Your task to perform on an android device: Go to location settings Image 0: 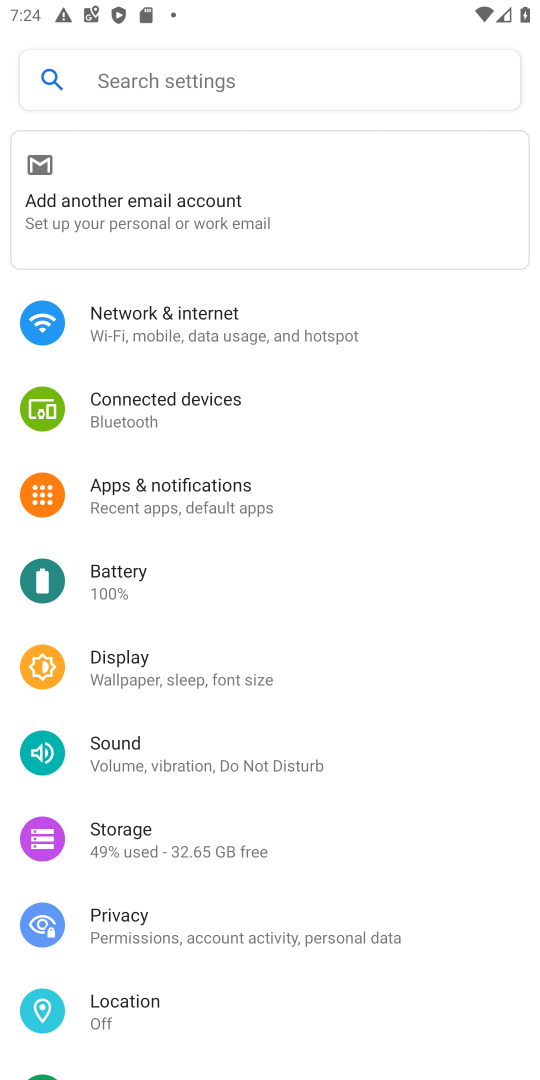
Step 0: click (222, 1010)
Your task to perform on an android device: Go to location settings Image 1: 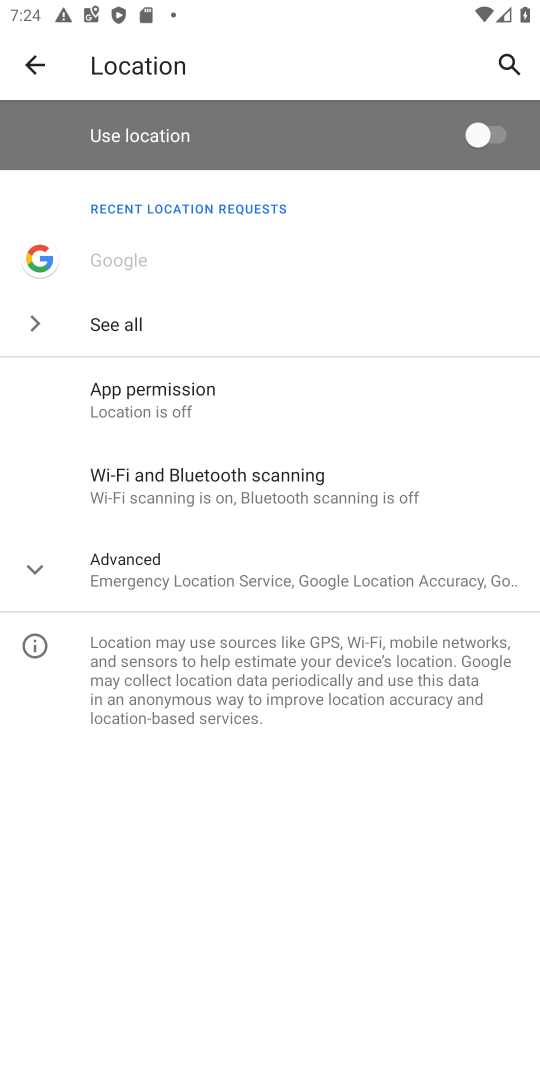
Step 1: task complete